Your task to perform on an android device: Open Android settings Image 0: 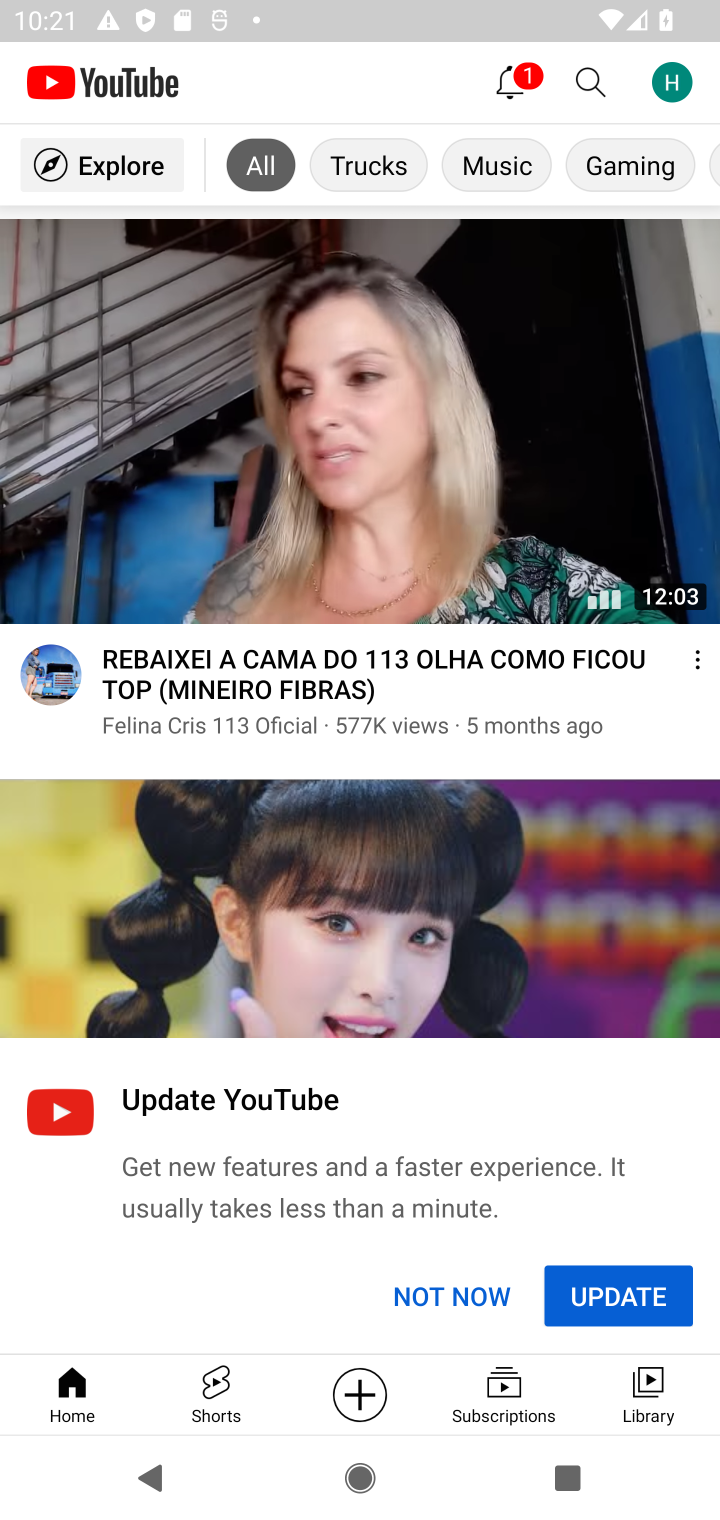
Step 0: press home button
Your task to perform on an android device: Open Android settings Image 1: 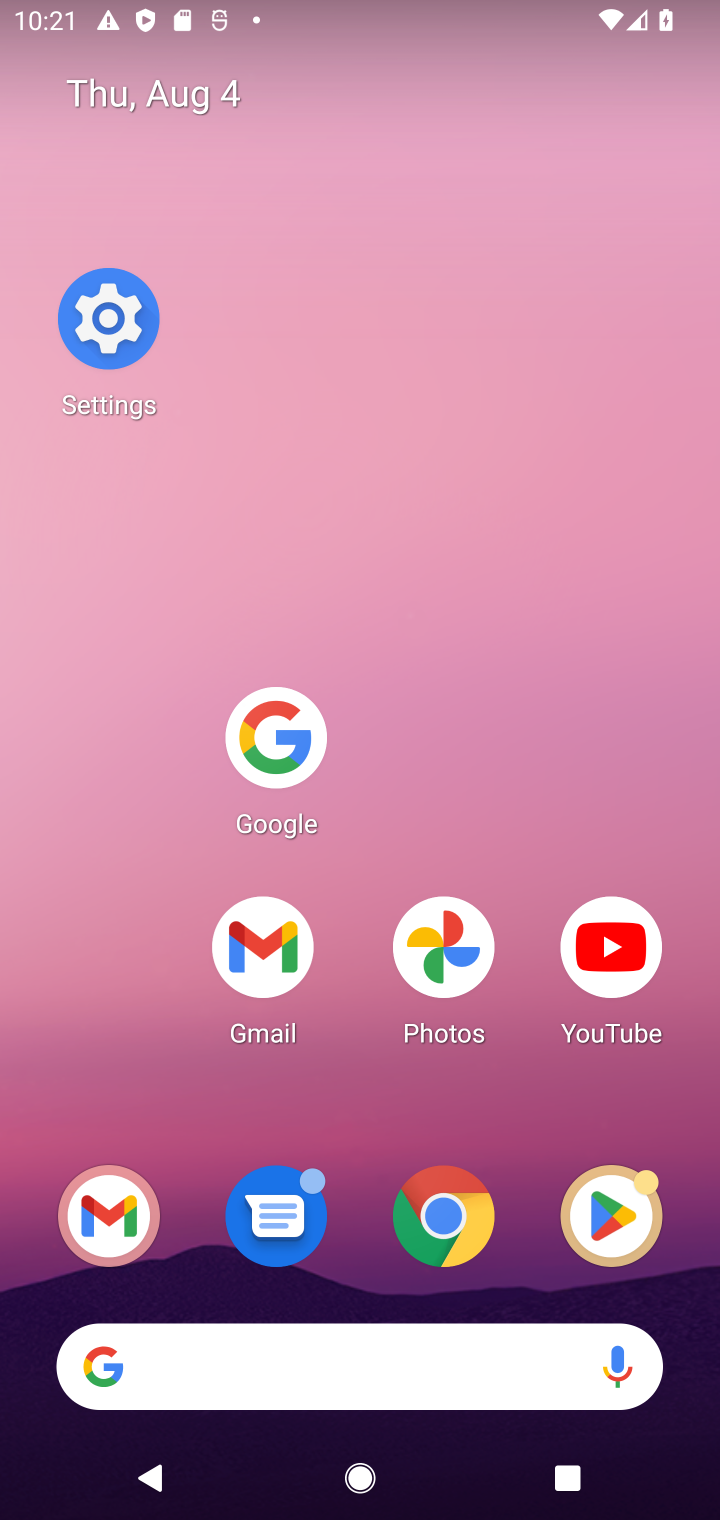
Step 1: click (147, 341)
Your task to perform on an android device: Open Android settings Image 2: 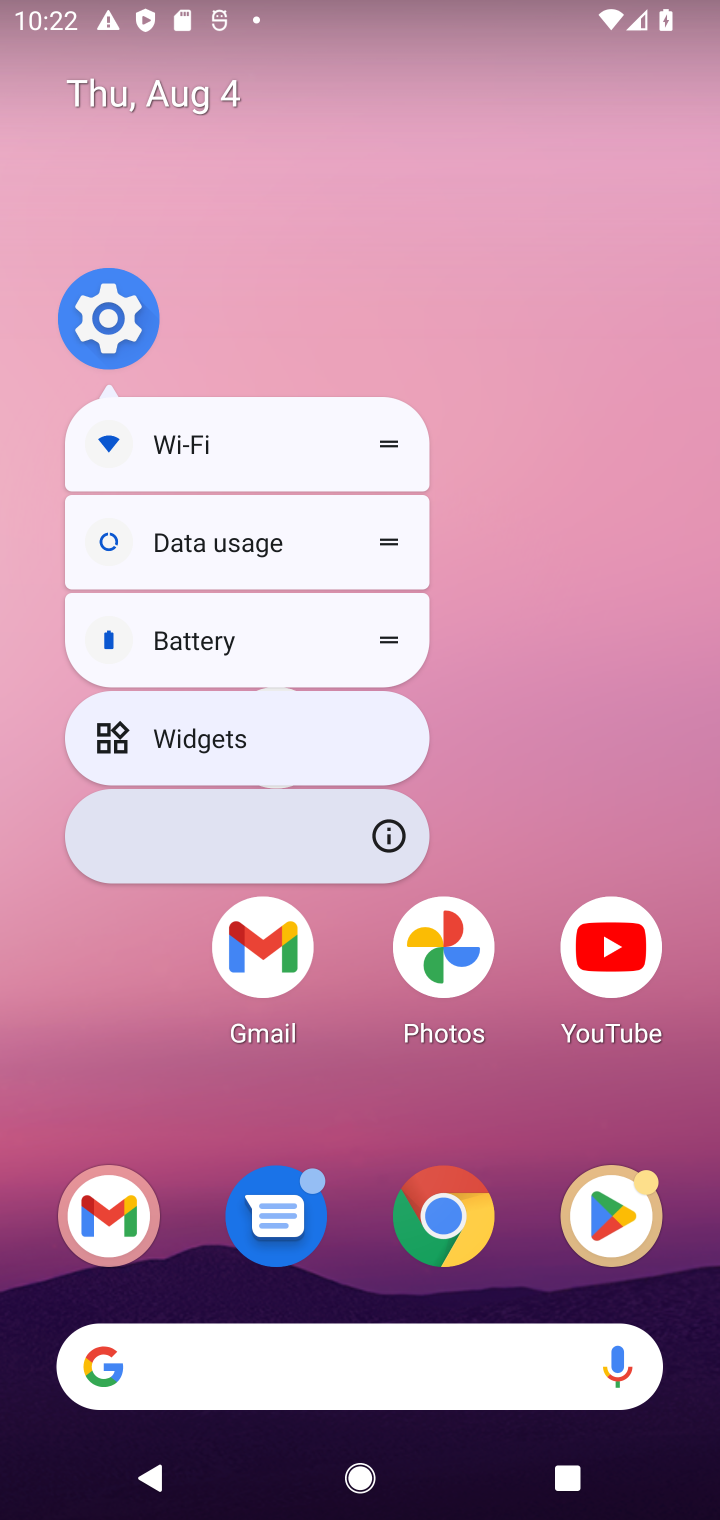
Step 2: click (109, 276)
Your task to perform on an android device: Open Android settings Image 3: 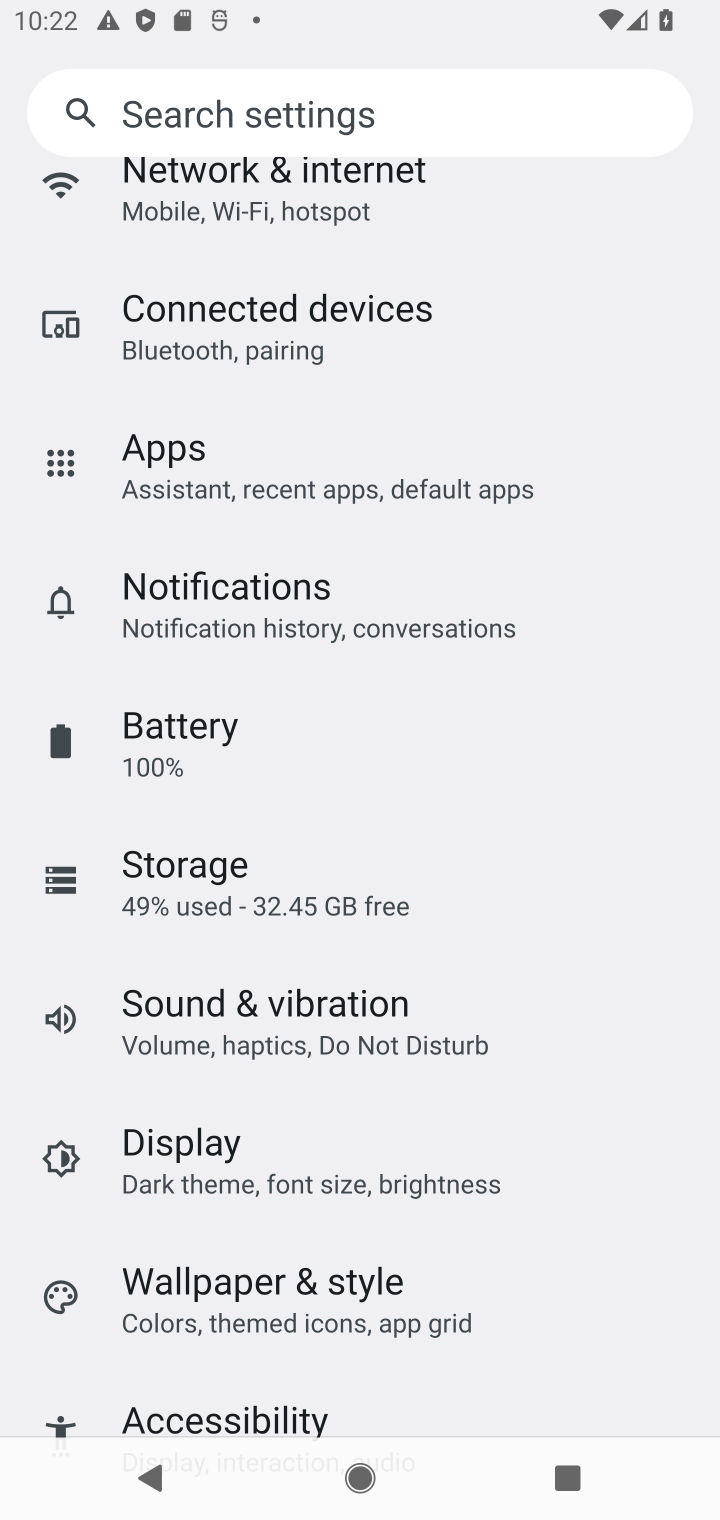
Step 3: task complete